Your task to perform on an android device: Go to wifi settings Image 0: 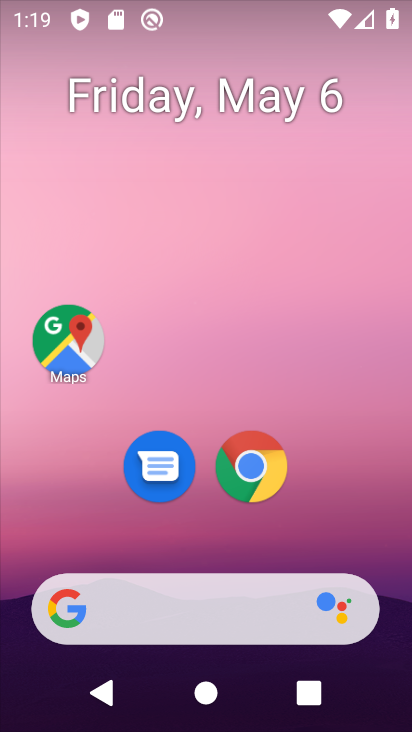
Step 0: press home button
Your task to perform on an android device: Go to wifi settings Image 1: 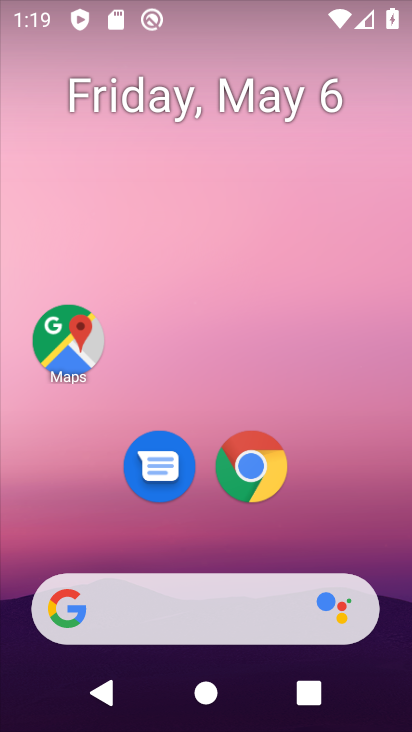
Step 1: press home button
Your task to perform on an android device: Go to wifi settings Image 2: 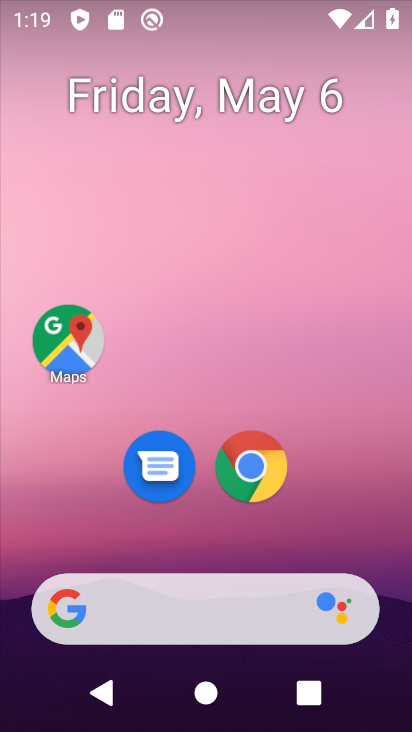
Step 2: drag from (212, 548) to (194, 12)
Your task to perform on an android device: Go to wifi settings Image 3: 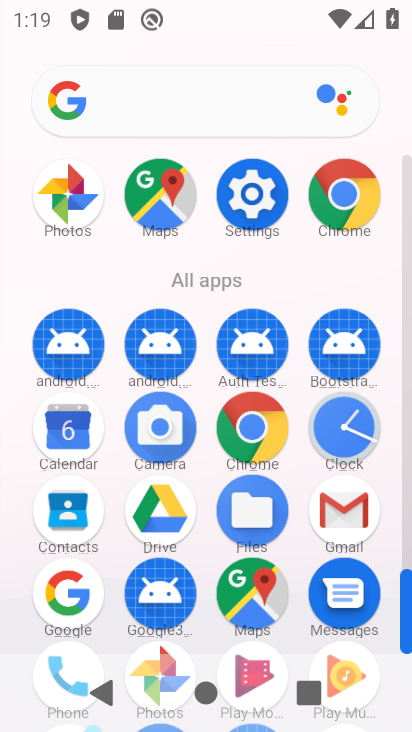
Step 3: drag from (230, 7) to (241, 642)
Your task to perform on an android device: Go to wifi settings Image 4: 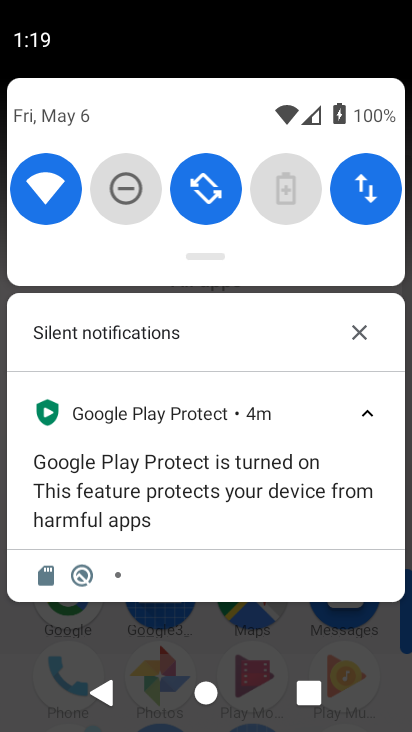
Step 4: drag from (182, 659) to (229, 189)
Your task to perform on an android device: Go to wifi settings Image 5: 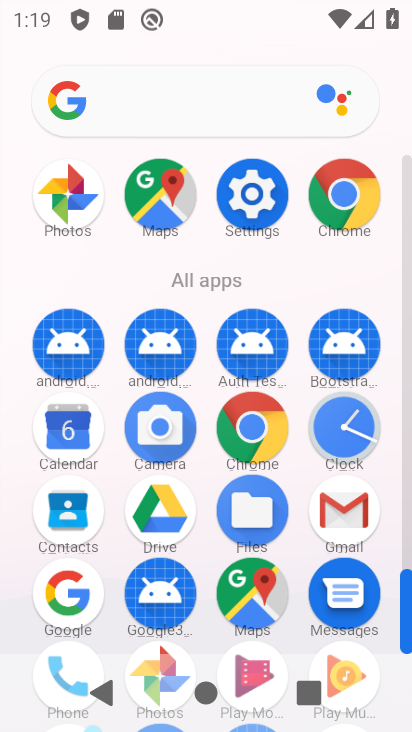
Step 5: click (245, 204)
Your task to perform on an android device: Go to wifi settings Image 6: 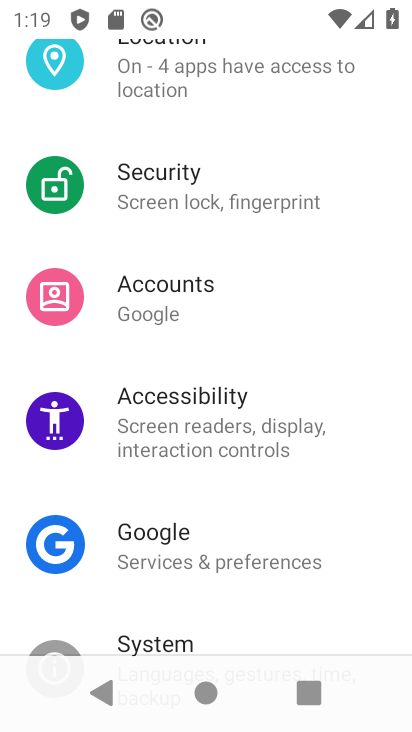
Step 6: drag from (175, 70) to (134, 703)
Your task to perform on an android device: Go to wifi settings Image 7: 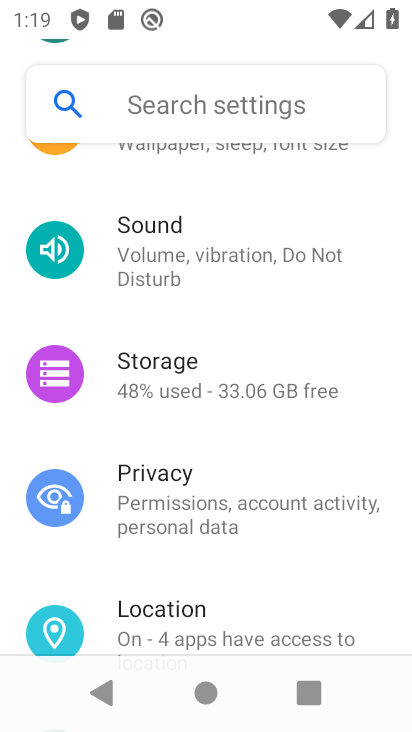
Step 7: drag from (173, 154) to (150, 714)
Your task to perform on an android device: Go to wifi settings Image 8: 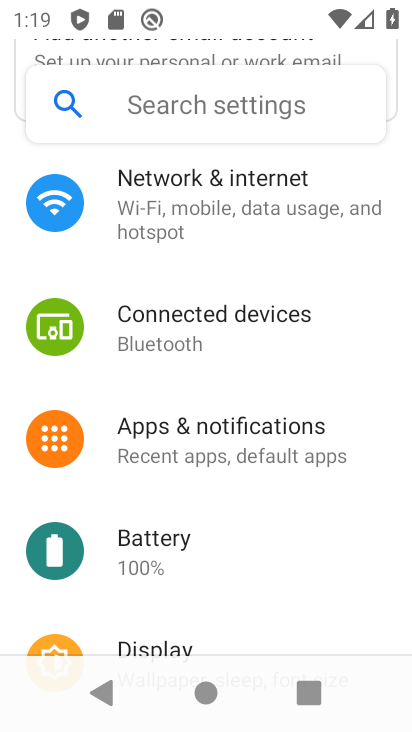
Step 8: drag from (166, 161) to (152, 654)
Your task to perform on an android device: Go to wifi settings Image 9: 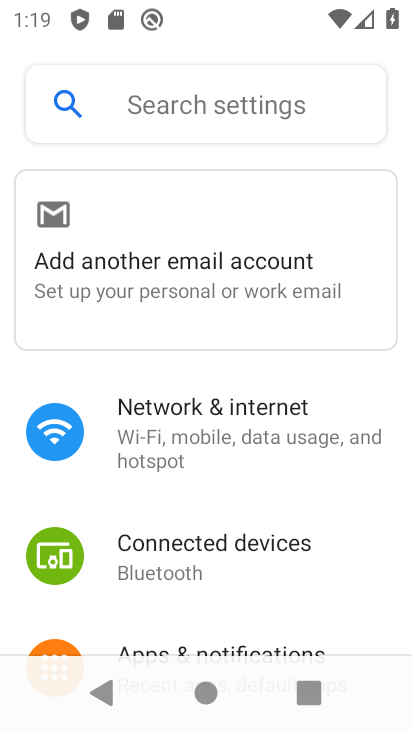
Step 9: click (162, 427)
Your task to perform on an android device: Go to wifi settings Image 10: 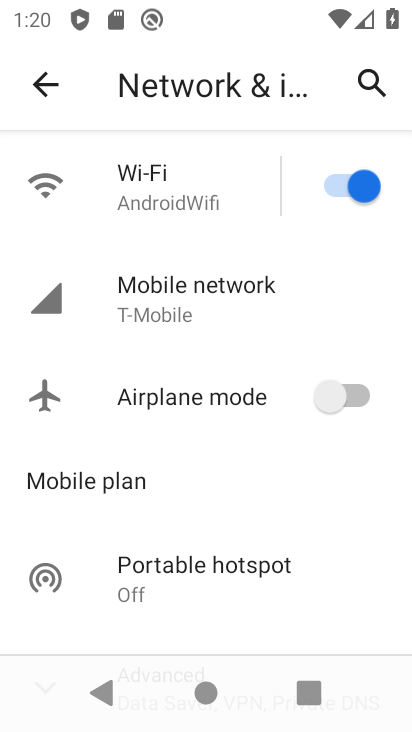
Step 10: click (192, 187)
Your task to perform on an android device: Go to wifi settings Image 11: 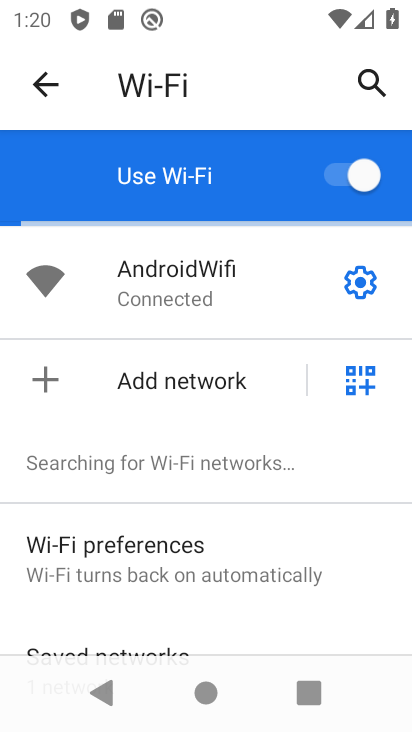
Step 11: task complete